Your task to perform on an android device: clear history in the chrome app Image 0: 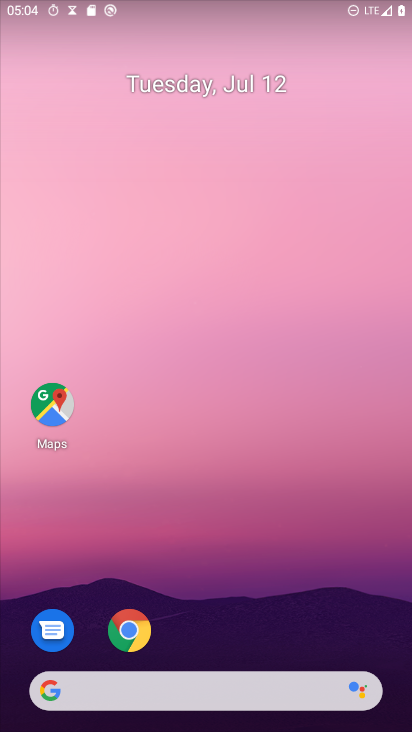
Step 0: drag from (158, 697) to (168, 8)
Your task to perform on an android device: clear history in the chrome app Image 1: 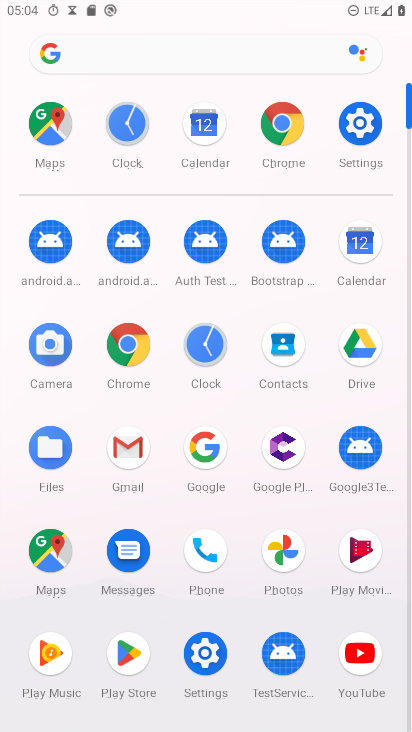
Step 1: click (124, 339)
Your task to perform on an android device: clear history in the chrome app Image 2: 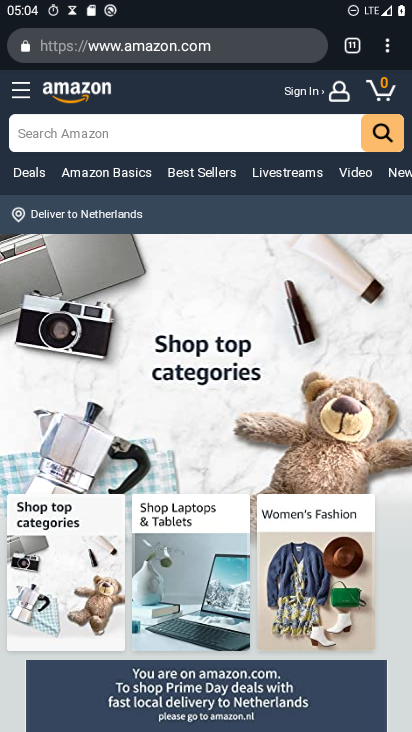
Step 2: drag from (389, 47) to (249, 550)
Your task to perform on an android device: clear history in the chrome app Image 3: 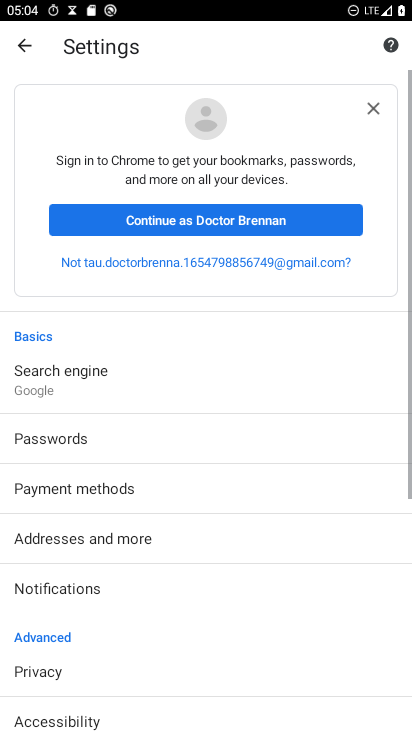
Step 3: drag from (260, 618) to (275, 223)
Your task to perform on an android device: clear history in the chrome app Image 4: 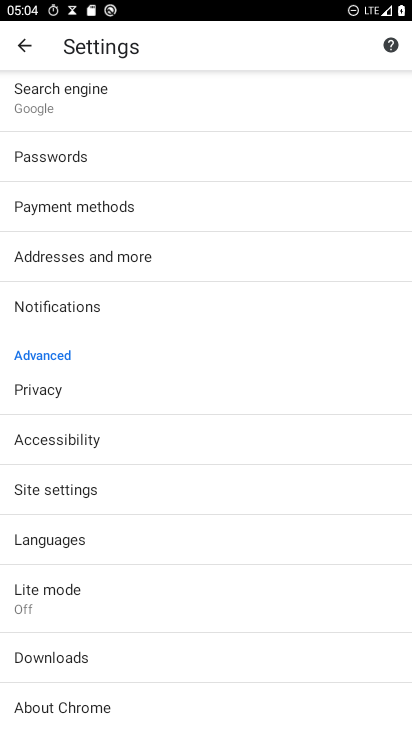
Step 4: click (70, 388)
Your task to perform on an android device: clear history in the chrome app Image 5: 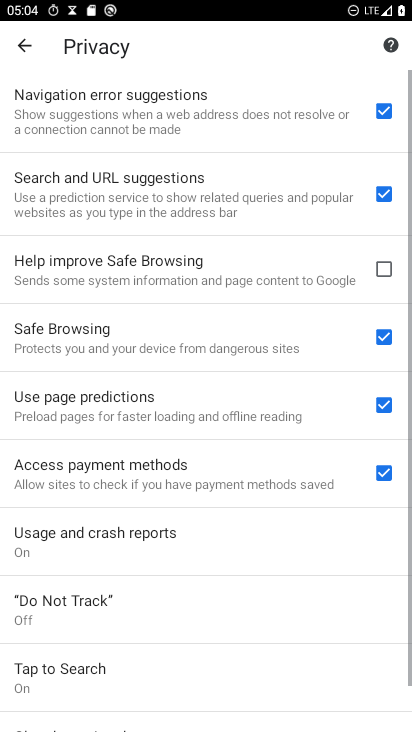
Step 5: drag from (166, 694) to (233, 191)
Your task to perform on an android device: clear history in the chrome app Image 6: 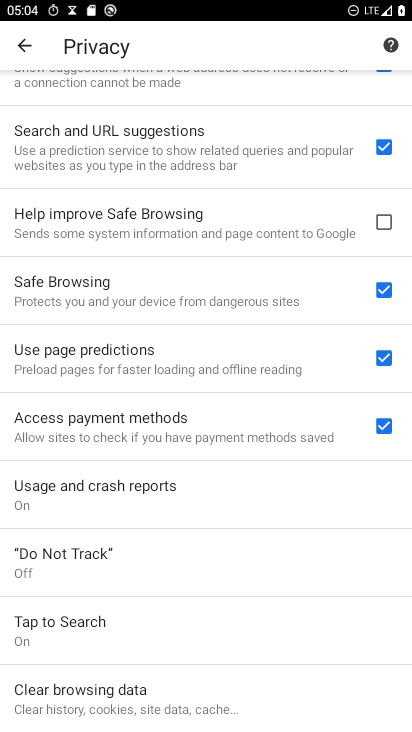
Step 6: click (216, 692)
Your task to perform on an android device: clear history in the chrome app Image 7: 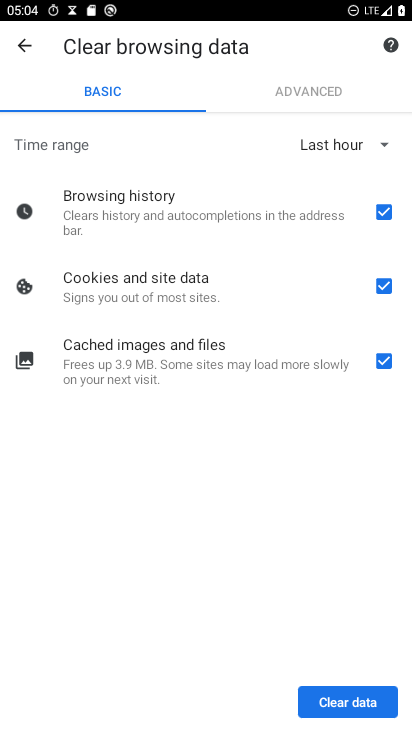
Step 7: click (320, 695)
Your task to perform on an android device: clear history in the chrome app Image 8: 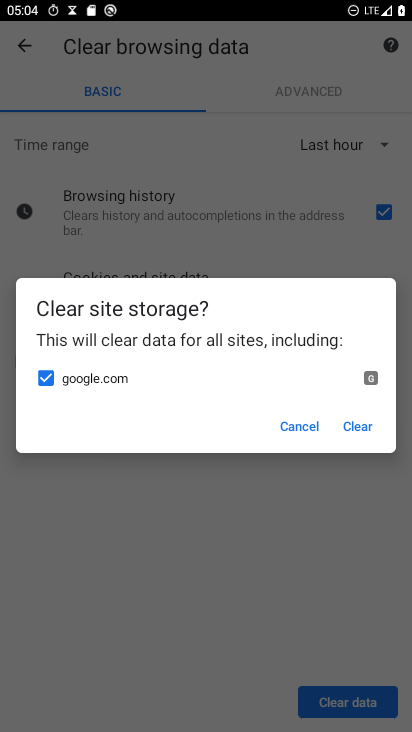
Step 8: click (358, 419)
Your task to perform on an android device: clear history in the chrome app Image 9: 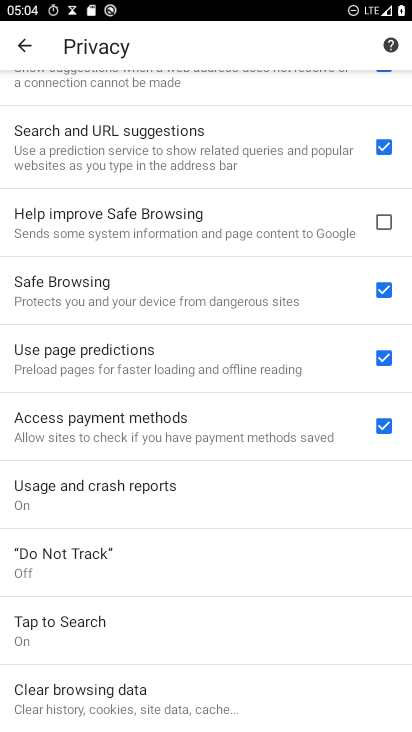
Step 9: task complete